Your task to perform on an android device: turn off picture-in-picture Image 0: 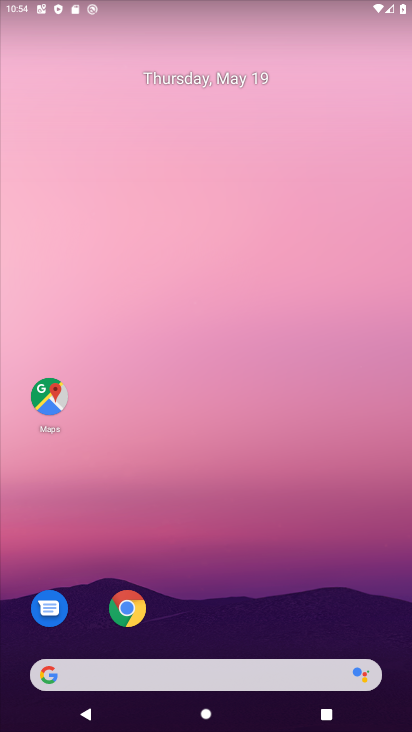
Step 0: click (127, 596)
Your task to perform on an android device: turn off picture-in-picture Image 1: 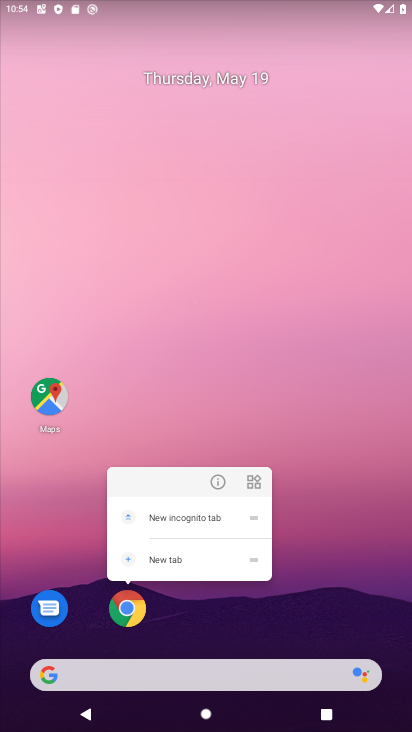
Step 1: click (217, 478)
Your task to perform on an android device: turn off picture-in-picture Image 2: 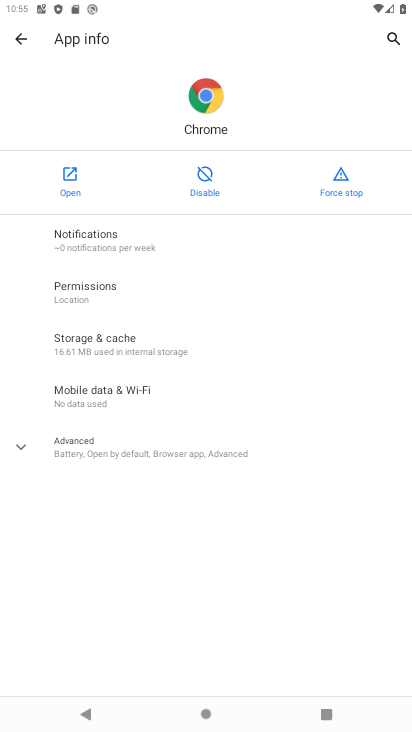
Step 2: click (24, 446)
Your task to perform on an android device: turn off picture-in-picture Image 3: 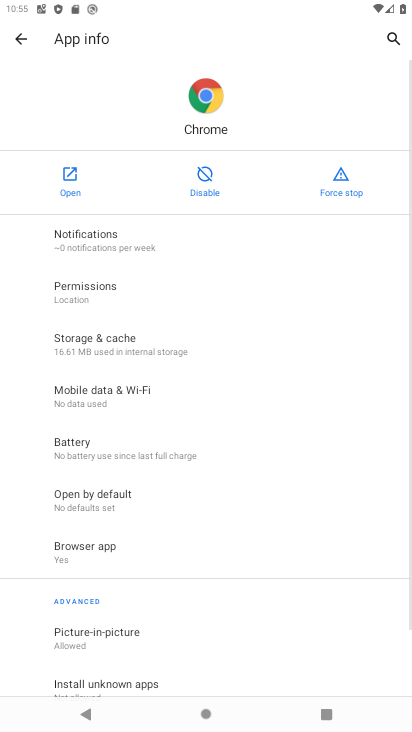
Step 3: drag from (267, 563) to (279, 446)
Your task to perform on an android device: turn off picture-in-picture Image 4: 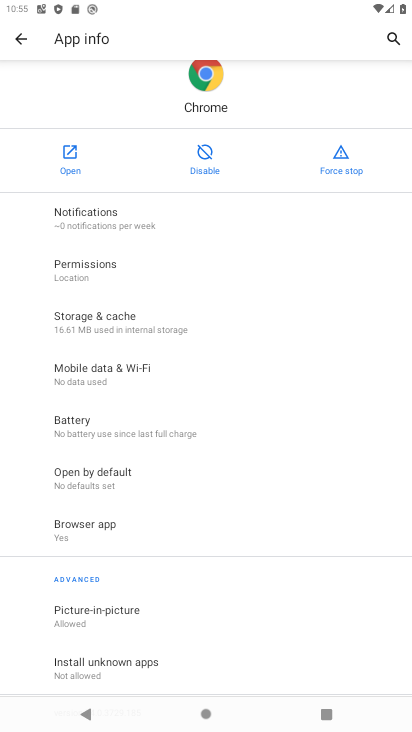
Step 4: click (99, 608)
Your task to perform on an android device: turn off picture-in-picture Image 5: 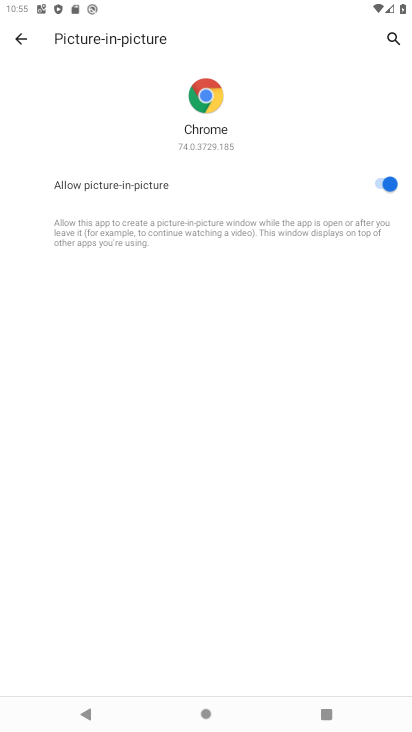
Step 5: click (377, 180)
Your task to perform on an android device: turn off picture-in-picture Image 6: 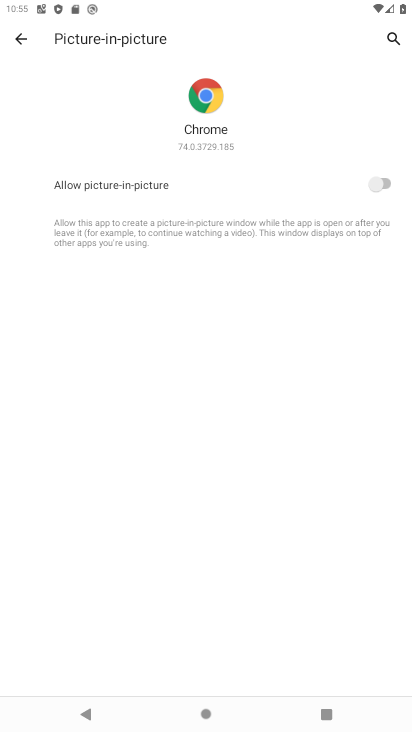
Step 6: task complete